Your task to perform on an android device: Go to battery settings Image 0: 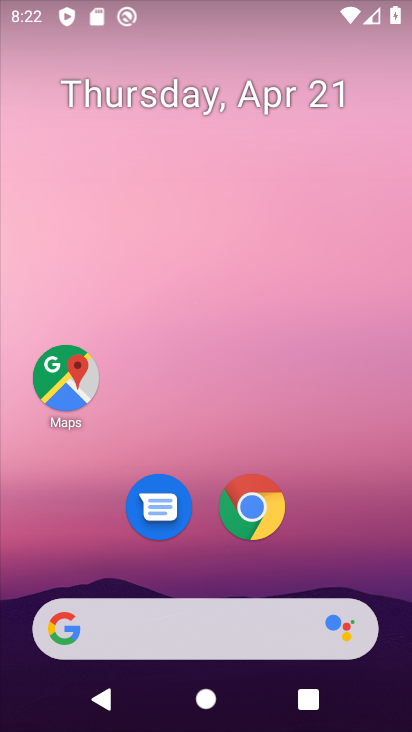
Step 0: drag from (375, 523) to (340, 75)
Your task to perform on an android device: Go to battery settings Image 1: 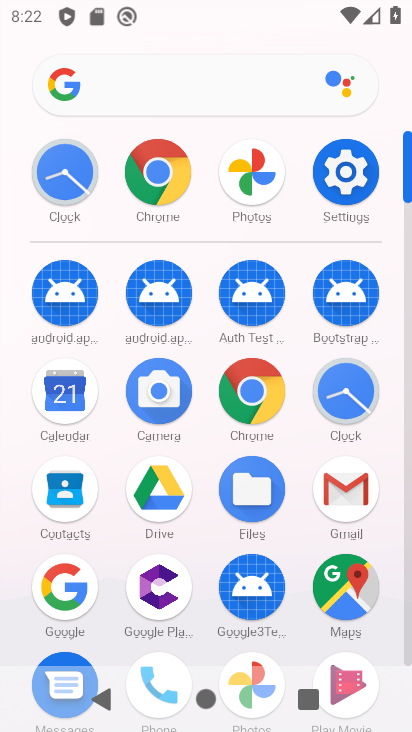
Step 1: click (366, 166)
Your task to perform on an android device: Go to battery settings Image 2: 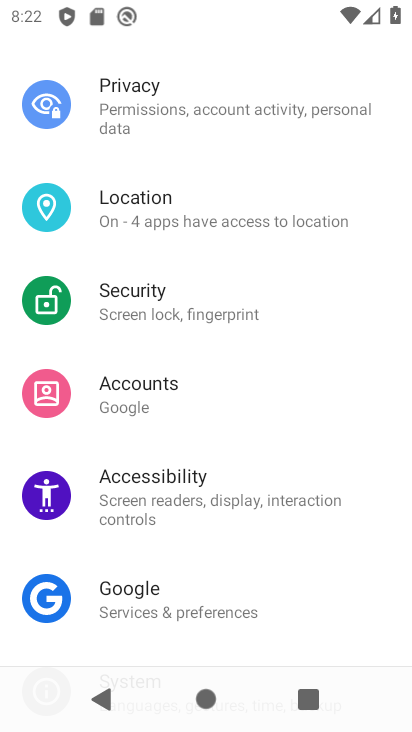
Step 2: drag from (259, 577) to (261, 219)
Your task to perform on an android device: Go to battery settings Image 3: 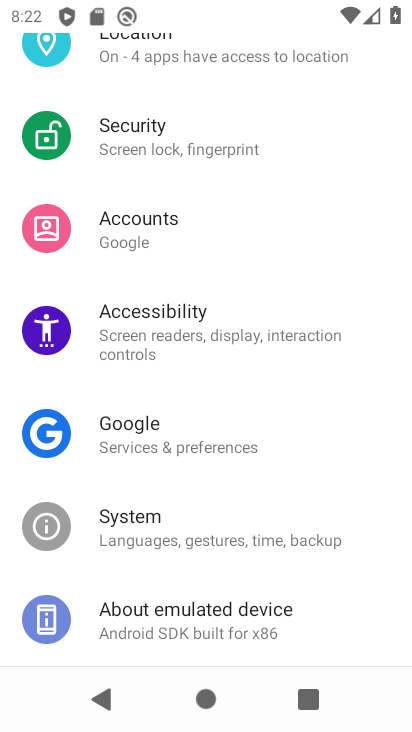
Step 3: drag from (303, 109) to (293, 603)
Your task to perform on an android device: Go to battery settings Image 4: 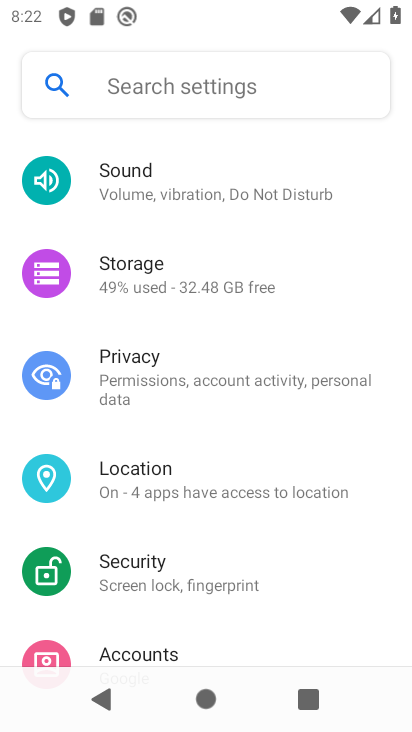
Step 4: drag from (333, 240) to (302, 580)
Your task to perform on an android device: Go to battery settings Image 5: 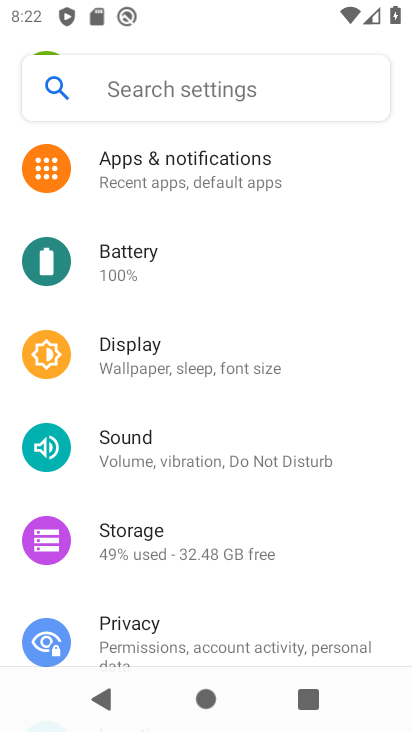
Step 5: click (130, 269)
Your task to perform on an android device: Go to battery settings Image 6: 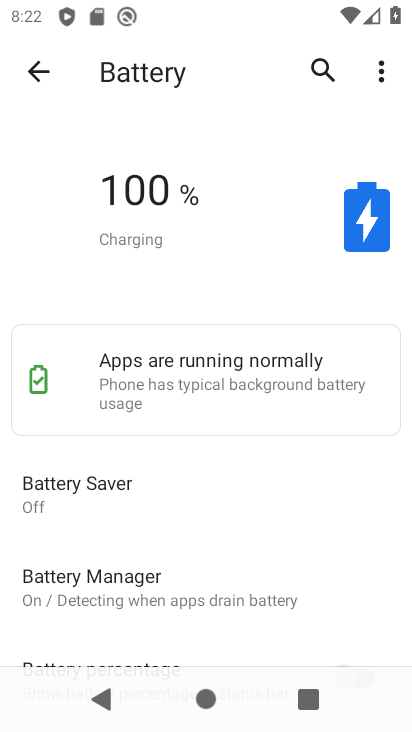
Step 6: task complete